Your task to perform on an android device: Open my contact list Image 0: 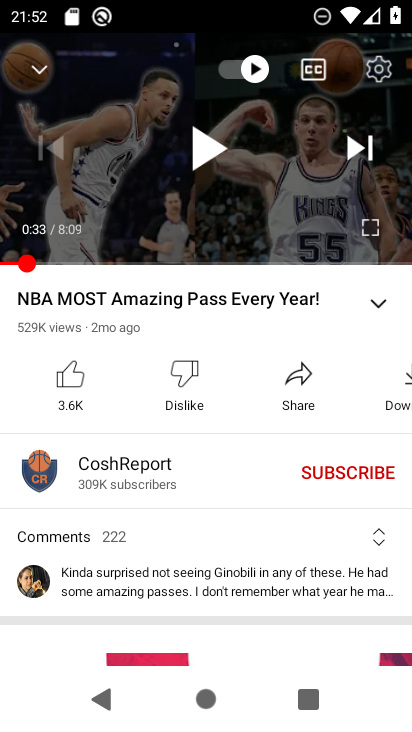
Step 0: press home button
Your task to perform on an android device: Open my contact list Image 1: 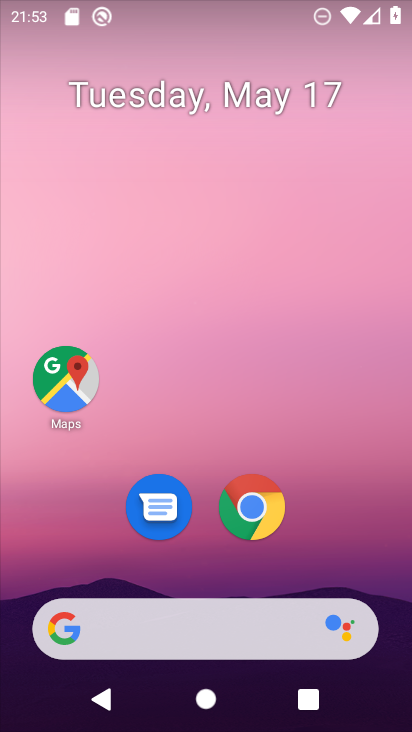
Step 1: drag from (385, 574) to (344, 26)
Your task to perform on an android device: Open my contact list Image 2: 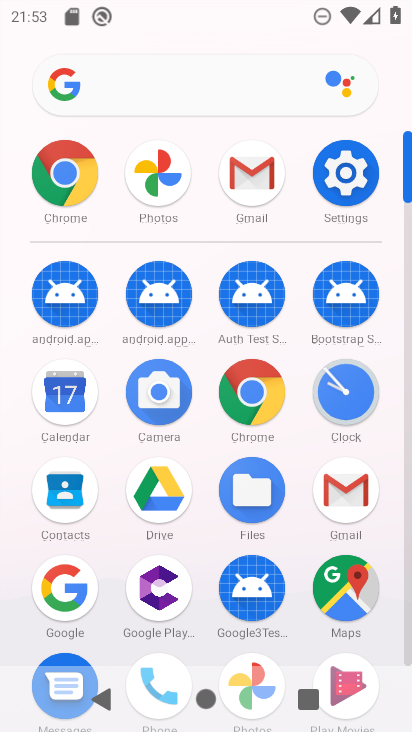
Step 2: click (62, 499)
Your task to perform on an android device: Open my contact list Image 3: 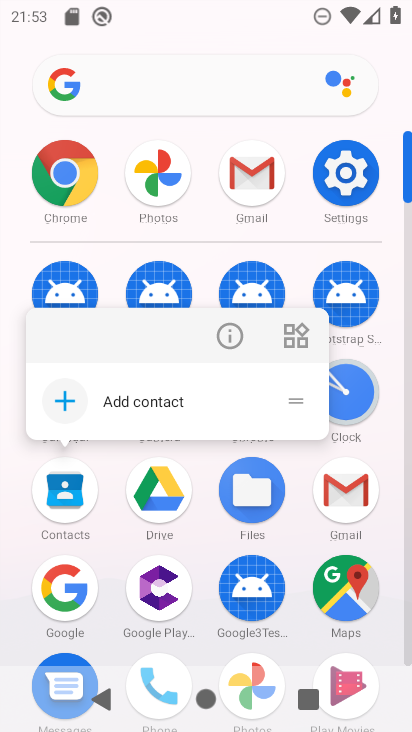
Step 3: click (62, 499)
Your task to perform on an android device: Open my contact list Image 4: 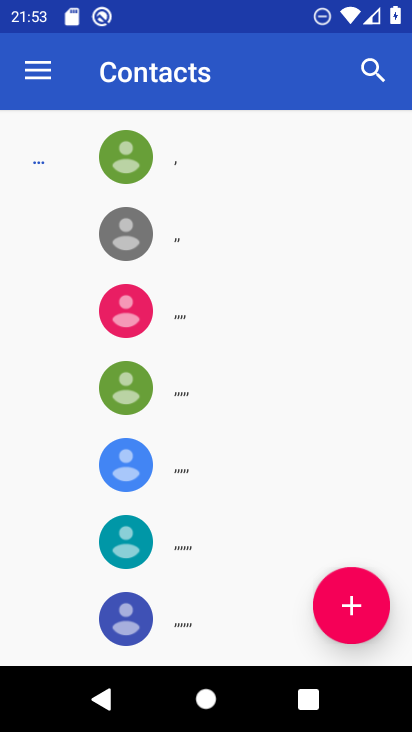
Step 4: task complete